Your task to perform on an android device: Open ESPN.com Image 0: 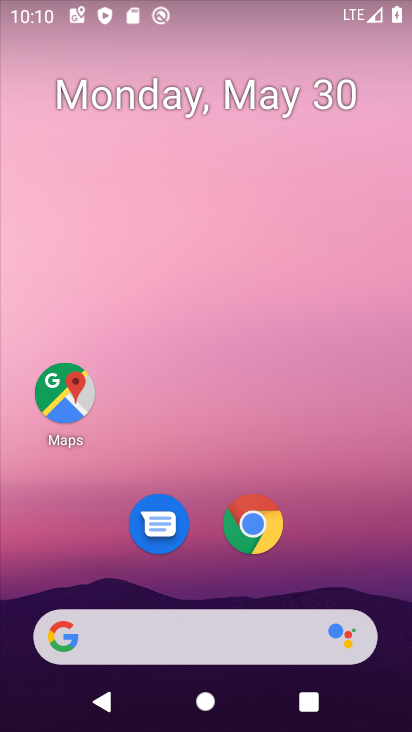
Step 0: click (181, 653)
Your task to perform on an android device: Open ESPN.com Image 1: 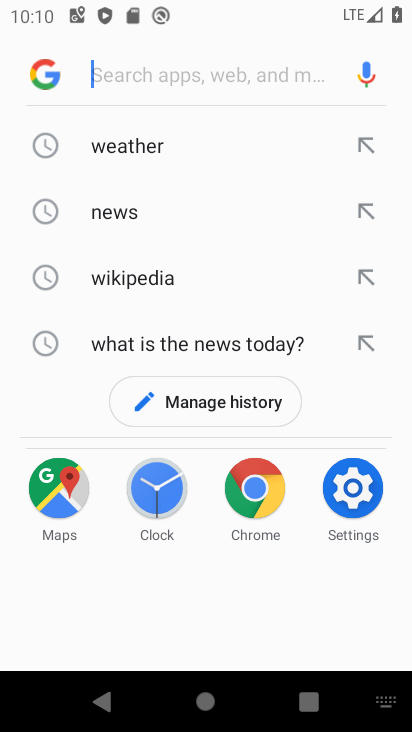
Step 1: type "espn.com"
Your task to perform on an android device: Open ESPN.com Image 2: 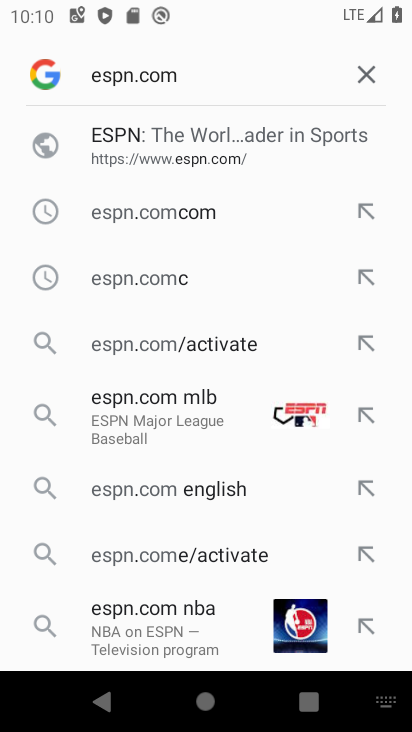
Step 2: click (143, 143)
Your task to perform on an android device: Open ESPN.com Image 3: 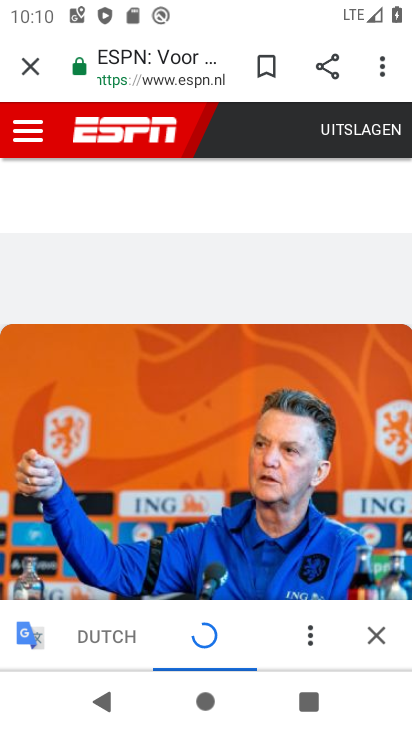
Step 3: task complete